Your task to perform on an android device: See recent photos Image 0: 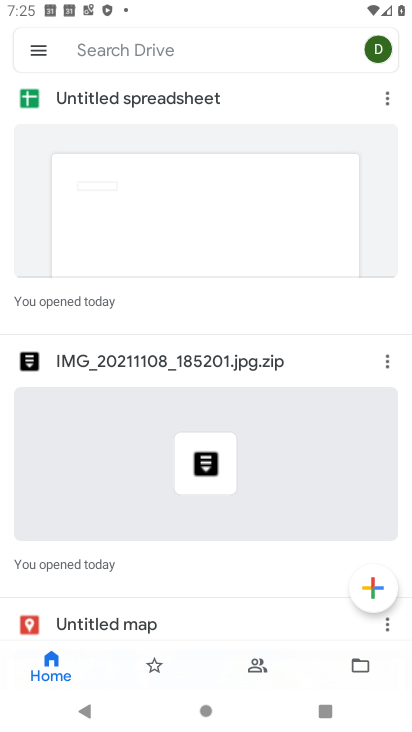
Step 0: press home button
Your task to perform on an android device: See recent photos Image 1: 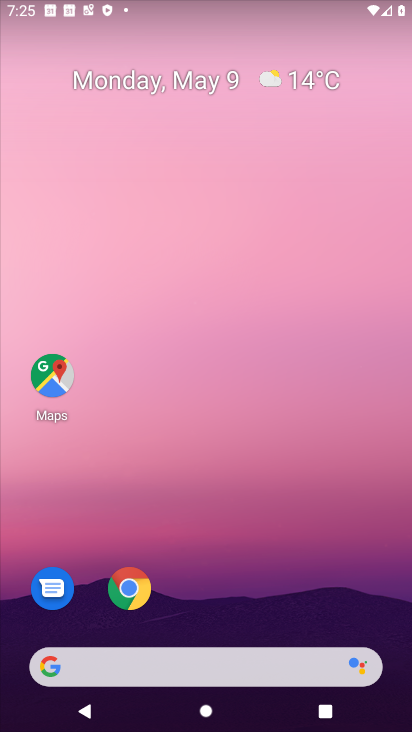
Step 1: drag from (343, 621) to (241, 0)
Your task to perform on an android device: See recent photos Image 2: 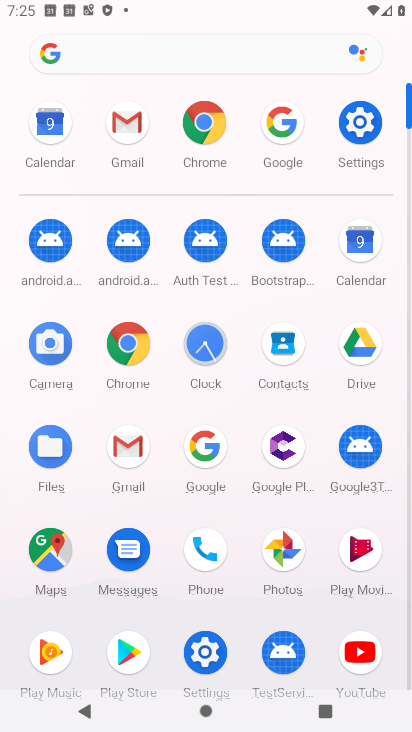
Step 2: click (274, 562)
Your task to perform on an android device: See recent photos Image 3: 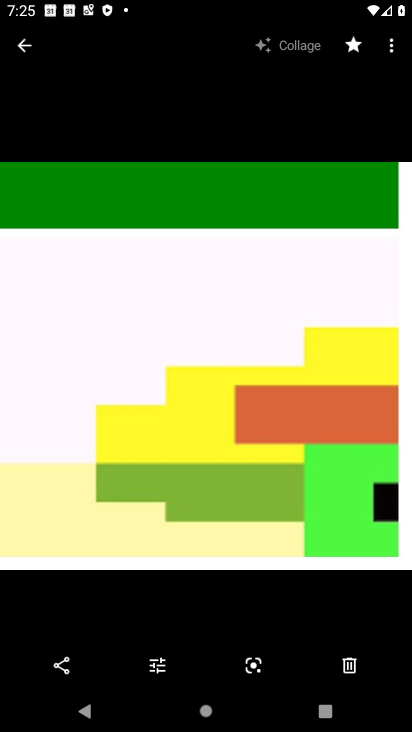
Step 3: click (23, 38)
Your task to perform on an android device: See recent photos Image 4: 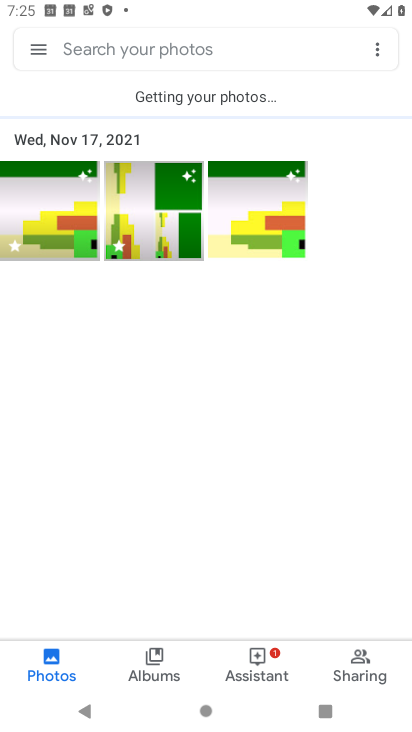
Step 4: click (64, 204)
Your task to perform on an android device: See recent photos Image 5: 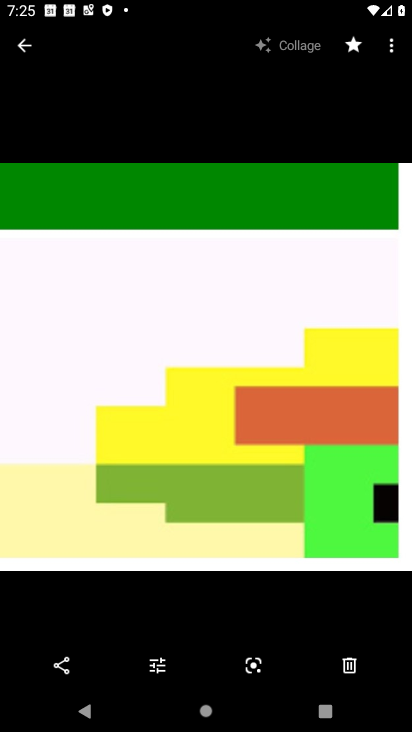
Step 5: task complete